Your task to perform on an android device: Go to Reddit.com Image 0: 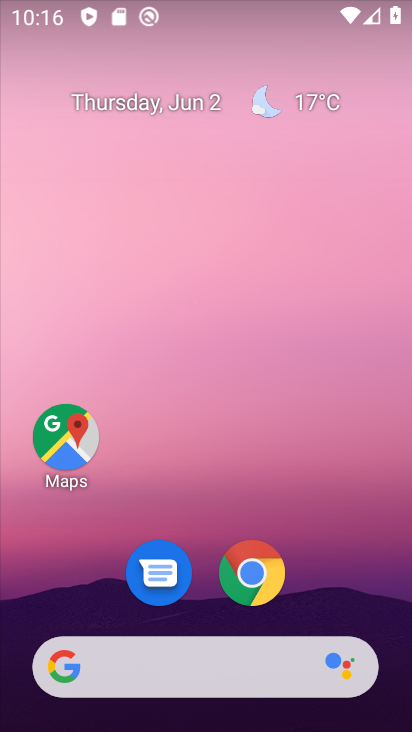
Step 0: task complete